Your task to perform on an android device: toggle notification dots Image 0: 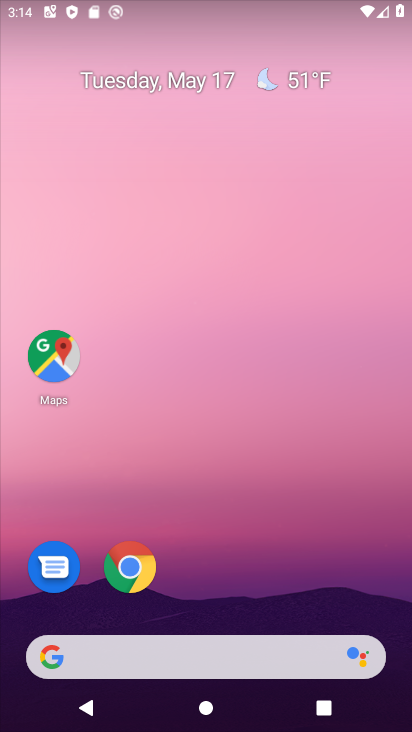
Step 0: drag from (181, 639) to (233, 68)
Your task to perform on an android device: toggle notification dots Image 1: 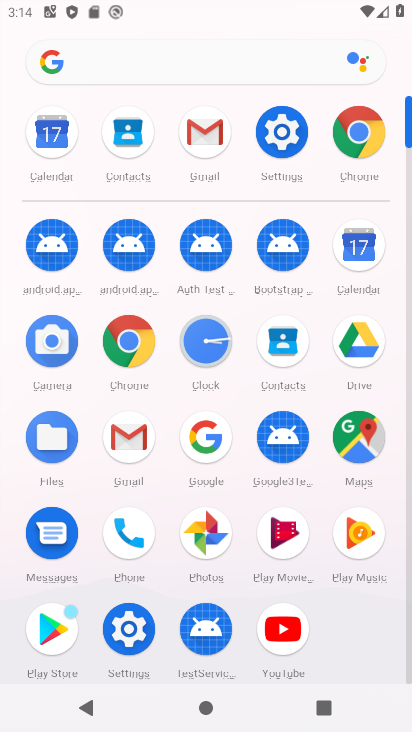
Step 1: click (297, 135)
Your task to perform on an android device: toggle notification dots Image 2: 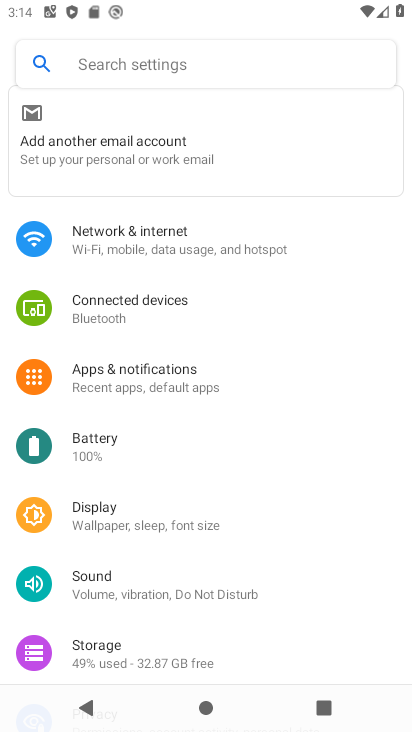
Step 2: click (136, 408)
Your task to perform on an android device: toggle notification dots Image 3: 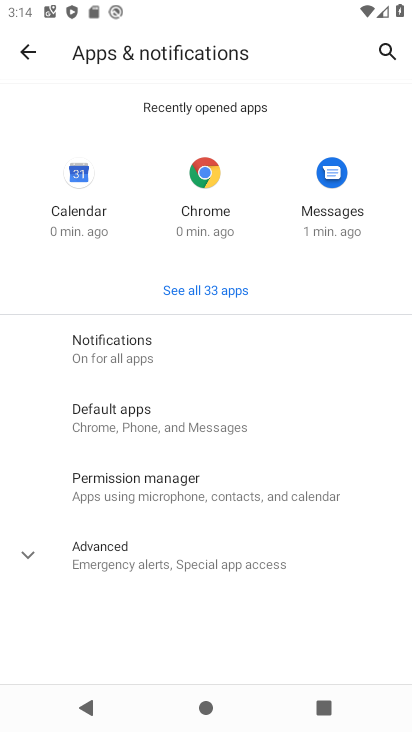
Step 3: click (132, 342)
Your task to perform on an android device: toggle notification dots Image 4: 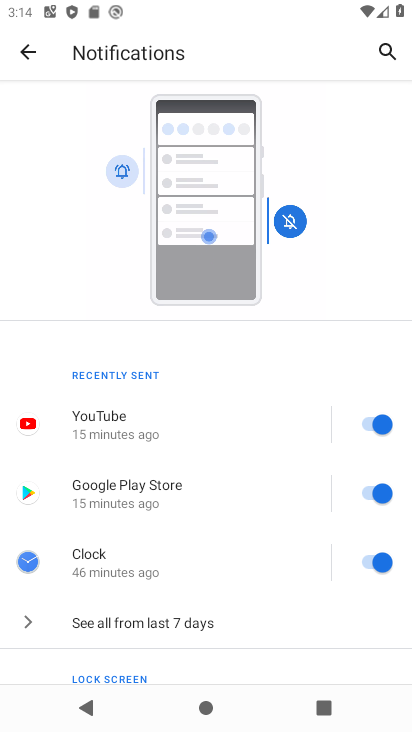
Step 4: drag from (281, 639) to (305, 332)
Your task to perform on an android device: toggle notification dots Image 5: 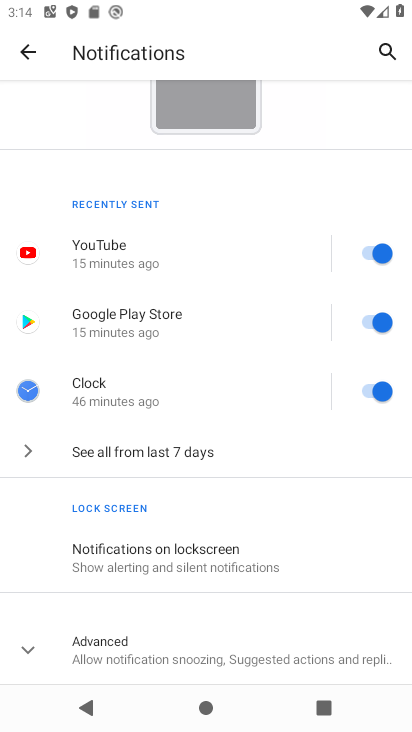
Step 5: click (136, 641)
Your task to perform on an android device: toggle notification dots Image 6: 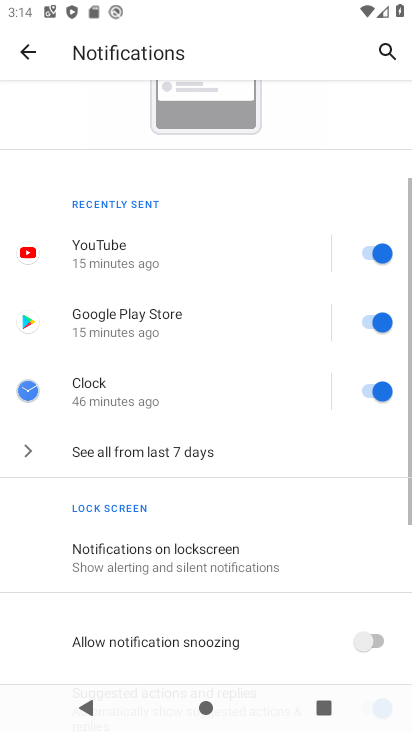
Step 6: drag from (205, 596) to (223, 254)
Your task to perform on an android device: toggle notification dots Image 7: 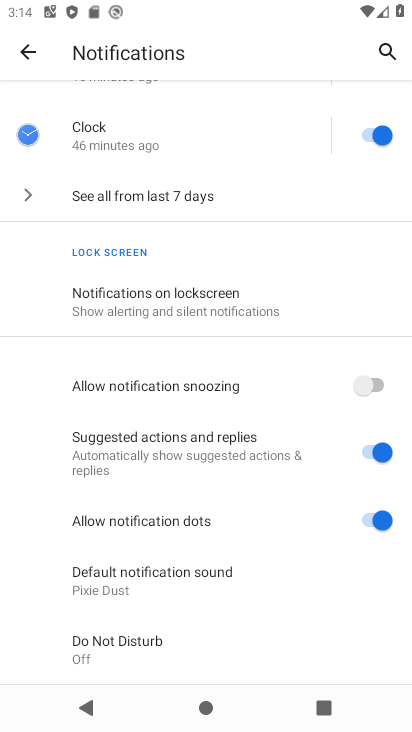
Step 7: click (376, 517)
Your task to perform on an android device: toggle notification dots Image 8: 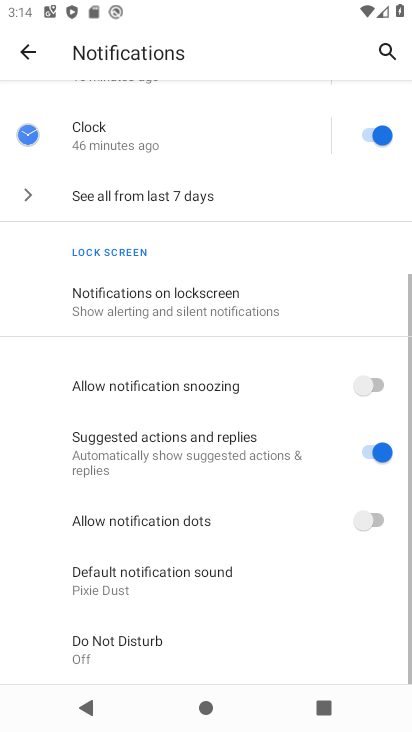
Step 8: task complete